Your task to perform on an android device: set an alarm Image 0: 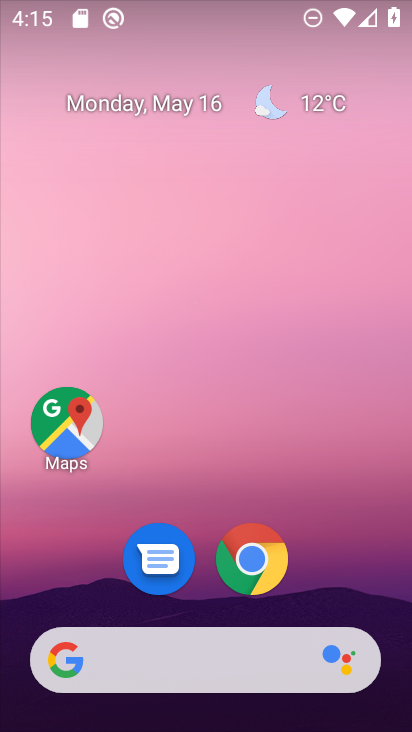
Step 0: drag from (348, 565) to (353, 27)
Your task to perform on an android device: set an alarm Image 1: 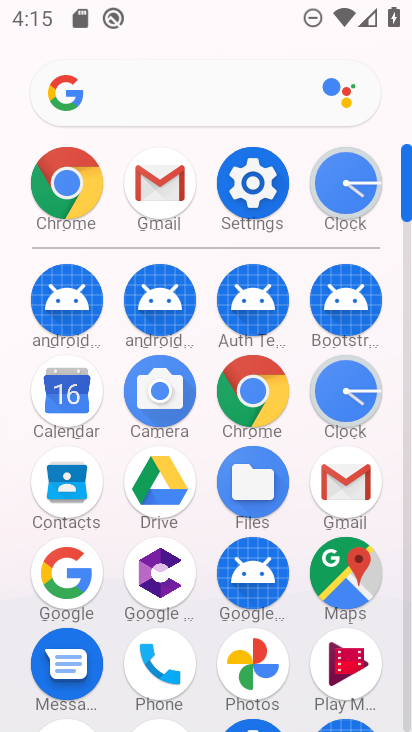
Step 1: click (330, 212)
Your task to perform on an android device: set an alarm Image 2: 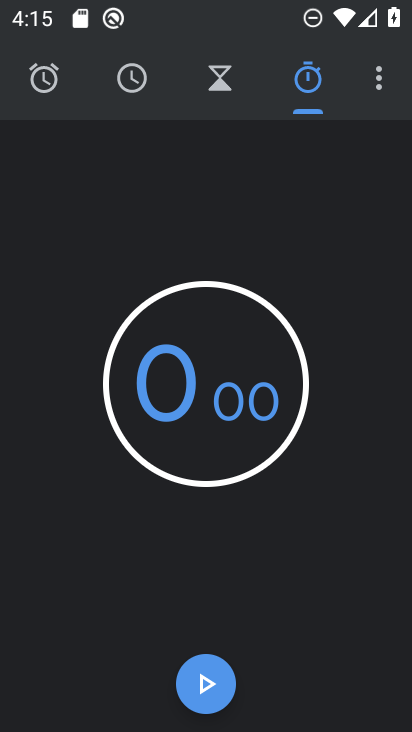
Step 2: click (41, 94)
Your task to perform on an android device: set an alarm Image 3: 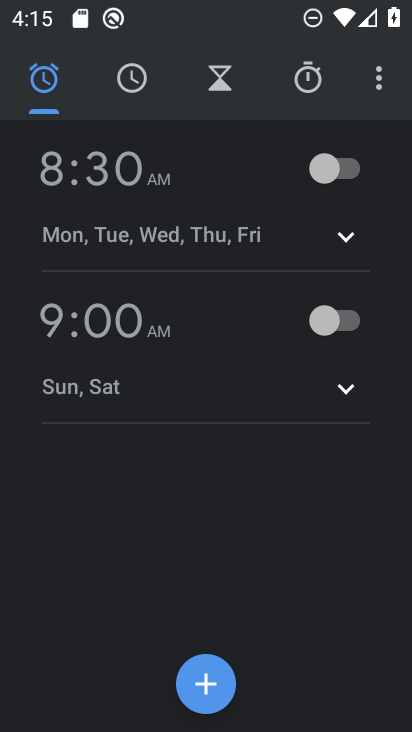
Step 3: click (357, 193)
Your task to perform on an android device: set an alarm Image 4: 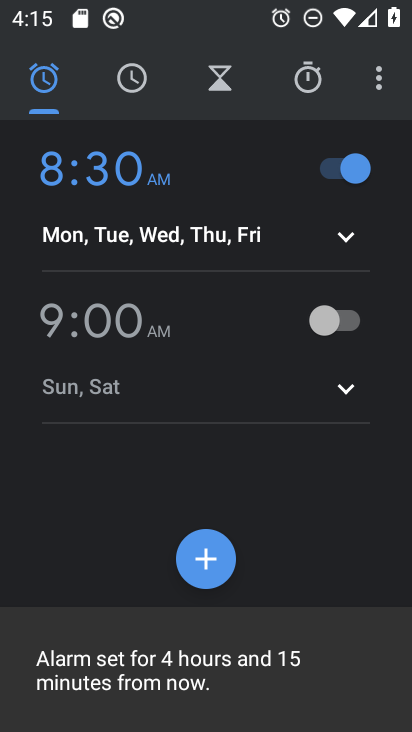
Step 4: task complete